Your task to perform on an android device: turn on javascript in the chrome app Image 0: 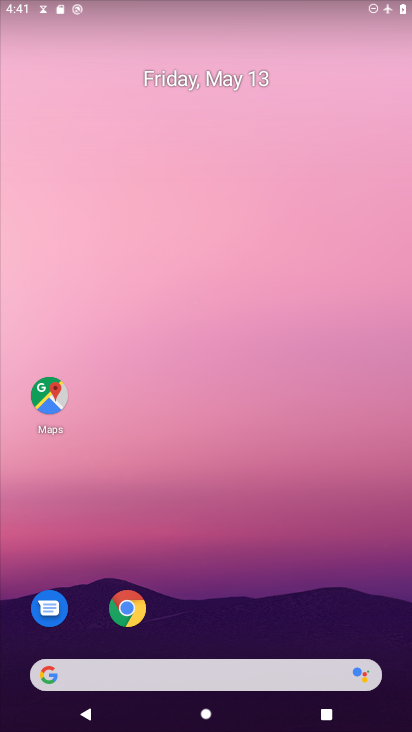
Step 0: drag from (186, 664) to (304, 11)
Your task to perform on an android device: turn on javascript in the chrome app Image 1: 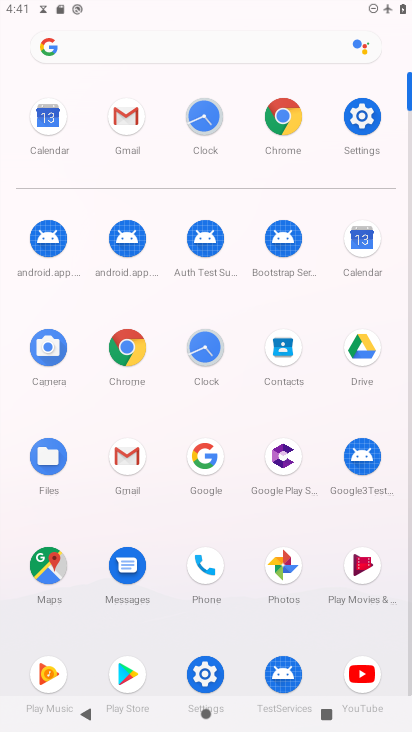
Step 1: click (126, 351)
Your task to perform on an android device: turn on javascript in the chrome app Image 2: 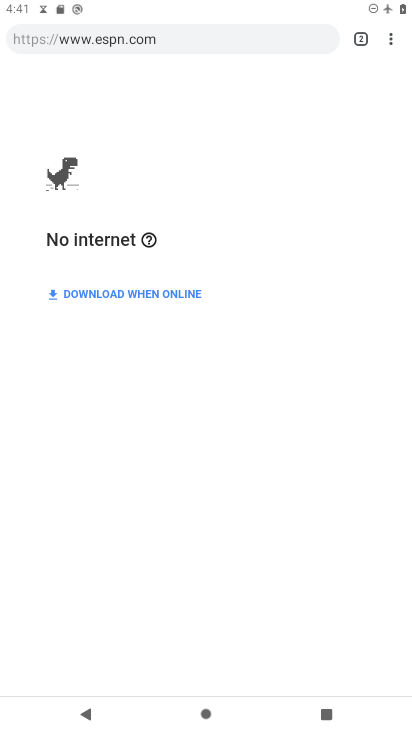
Step 2: click (386, 41)
Your task to perform on an android device: turn on javascript in the chrome app Image 3: 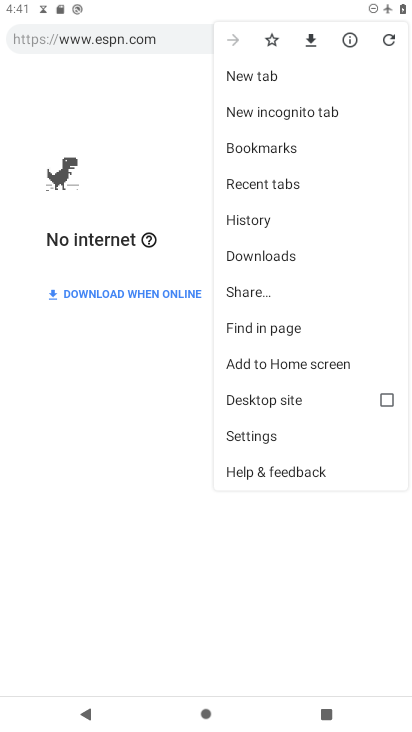
Step 3: click (271, 428)
Your task to perform on an android device: turn on javascript in the chrome app Image 4: 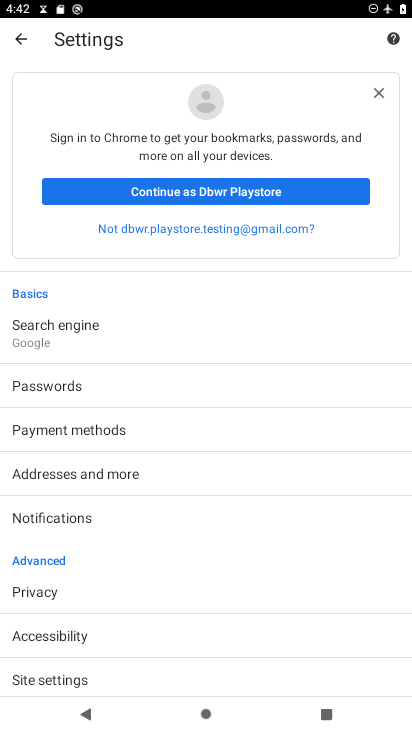
Step 4: drag from (177, 613) to (215, 224)
Your task to perform on an android device: turn on javascript in the chrome app Image 5: 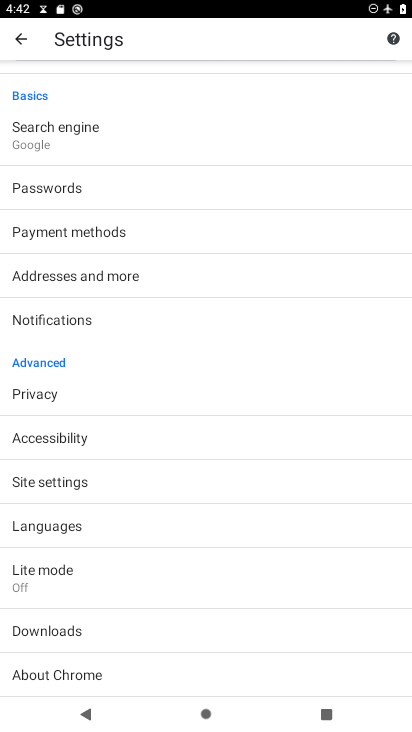
Step 5: click (111, 477)
Your task to perform on an android device: turn on javascript in the chrome app Image 6: 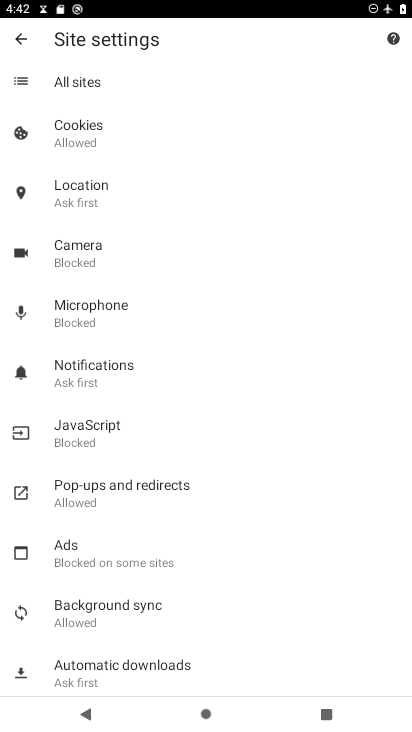
Step 6: click (162, 440)
Your task to perform on an android device: turn on javascript in the chrome app Image 7: 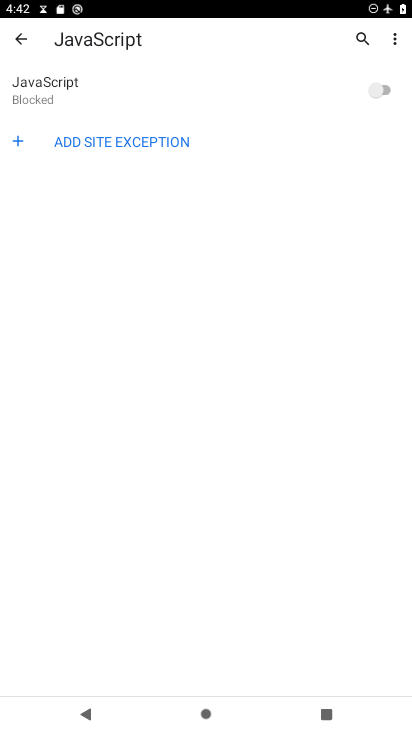
Step 7: click (384, 86)
Your task to perform on an android device: turn on javascript in the chrome app Image 8: 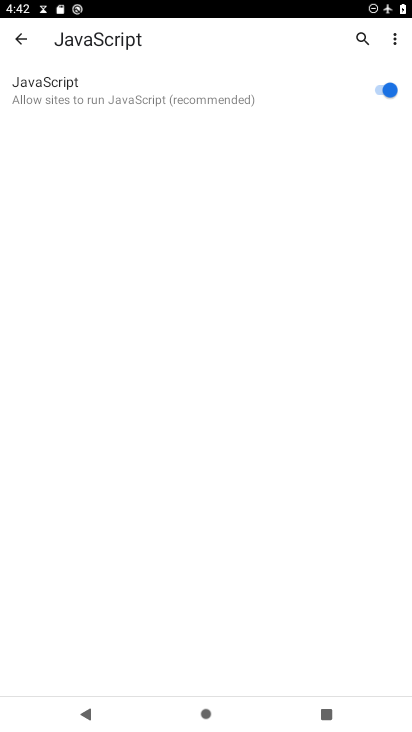
Step 8: task complete